Your task to perform on an android device: read, delete, or share a saved page in the chrome app Image 0: 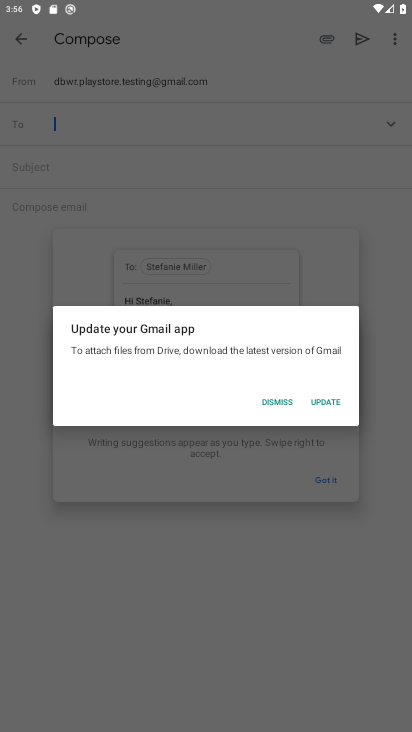
Step 0: press home button
Your task to perform on an android device: read, delete, or share a saved page in the chrome app Image 1: 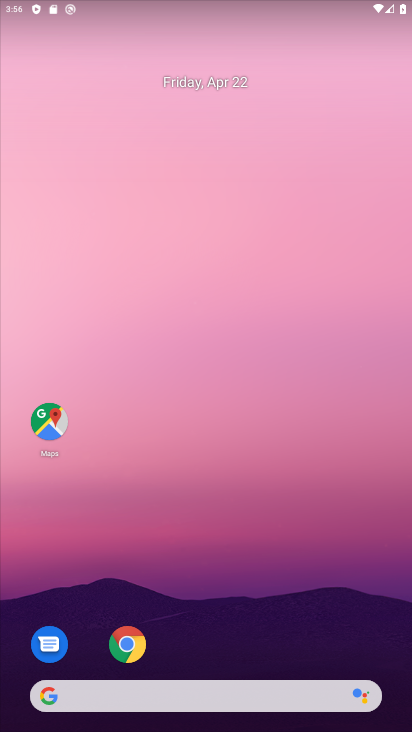
Step 1: click (121, 645)
Your task to perform on an android device: read, delete, or share a saved page in the chrome app Image 2: 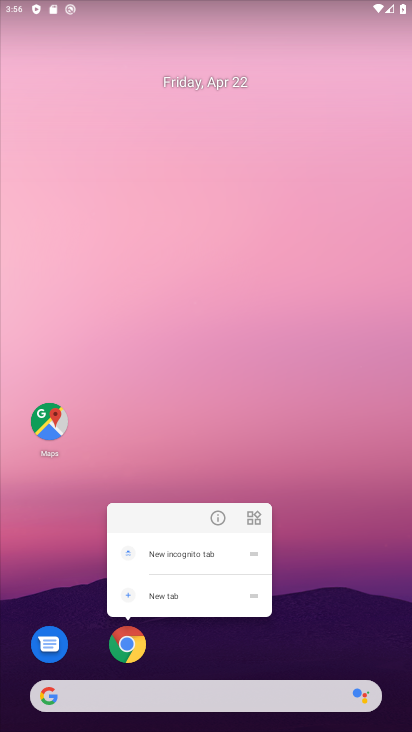
Step 2: click (121, 643)
Your task to perform on an android device: read, delete, or share a saved page in the chrome app Image 3: 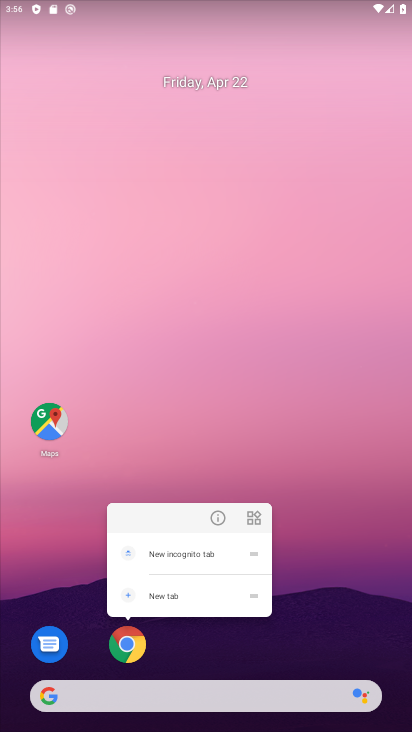
Step 3: click (132, 644)
Your task to perform on an android device: read, delete, or share a saved page in the chrome app Image 4: 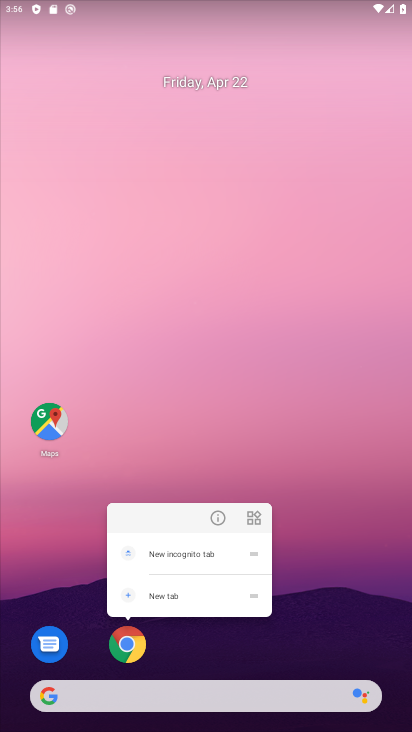
Step 4: click (132, 644)
Your task to perform on an android device: read, delete, or share a saved page in the chrome app Image 5: 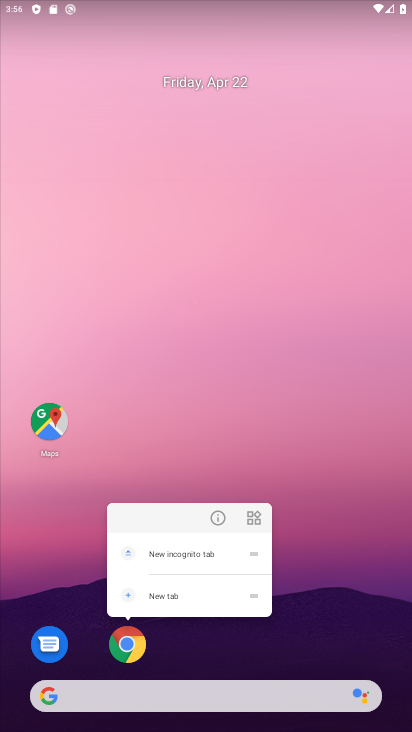
Step 5: click (132, 644)
Your task to perform on an android device: read, delete, or share a saved page in the chrome app Image 6: 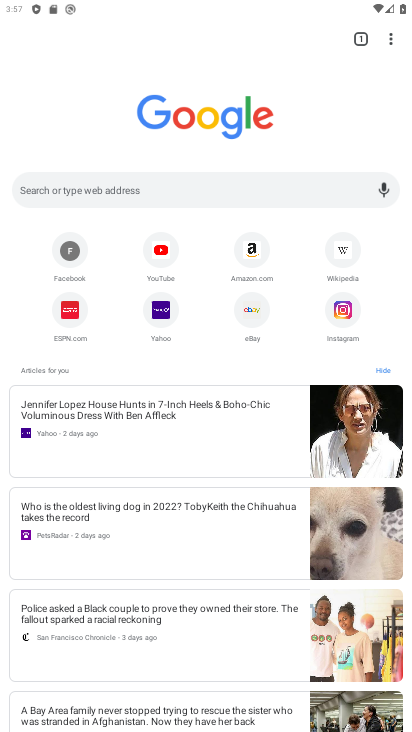
Step 6: click (391, 40)
Your task to perform on an android device: read, delete, or share a saved page in the chrome app Image 7: 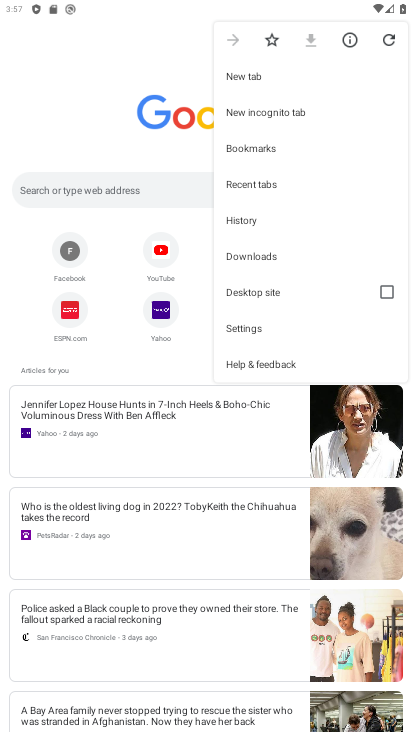
Step 7: click (261, 257)
Your task to perform on an android device: read, delete, or share a saved page in the chrome app Image 8: 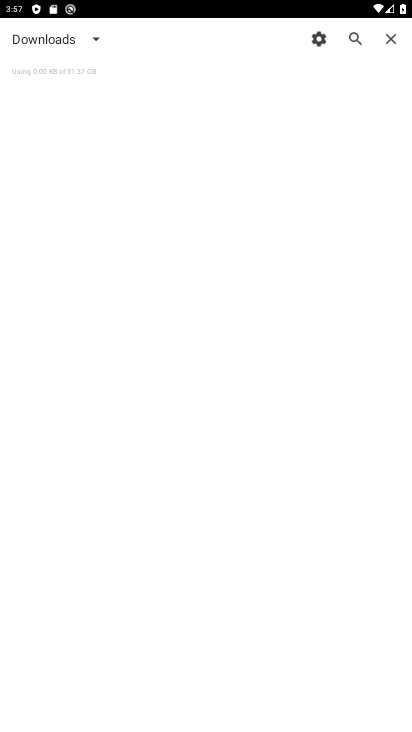
Step 8: click (84, 41)
Your task to perform on an android device: read, delete, or share a saved page in the chrome app Image 9: 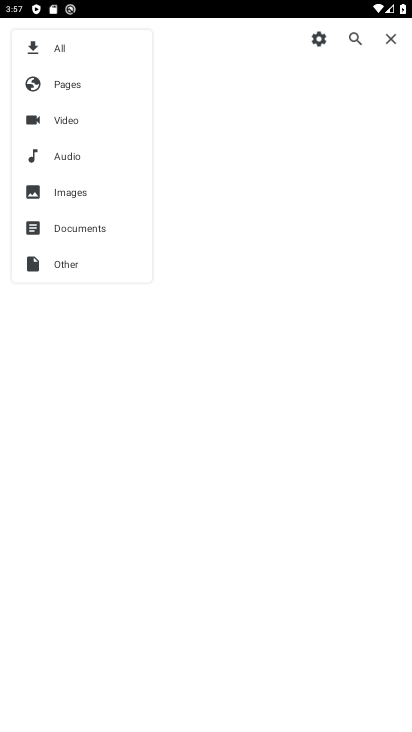
Step 9: click (68, 82)
Your task to perform on an android device: read, delete, or share a saved page in the chrome app Image 10: 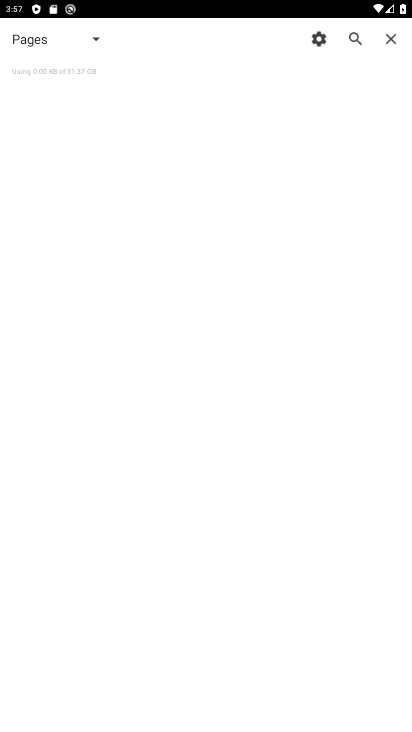
Step 10: task complete